Your task to perform on an android device: delete the emails in spam in the gmail app Image 0: 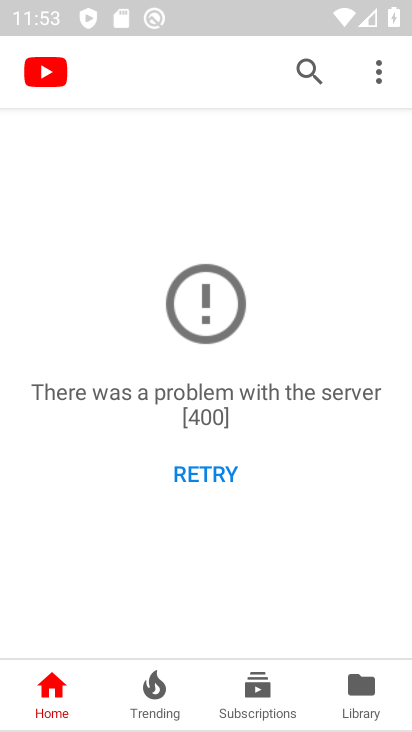
Step 0: press home button
Your task to perform on an android device: delete the emails in spam in the gmail app Image 1: 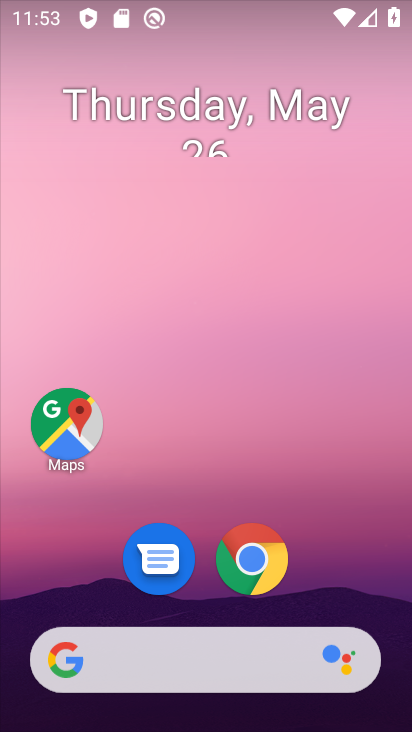
Step 1: drag from (205, 506) to (213, 52)
Your task to perform on an android device: delete the emails in spam in the gmail app Image 2: 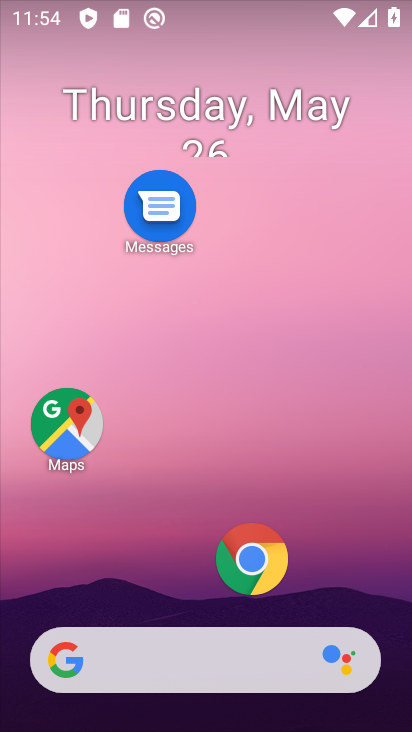
Step 2: drag from (191, 601) to (196, 36)
Your task to perform on an android device: delete the emails in spam in the gmail app Image 3: 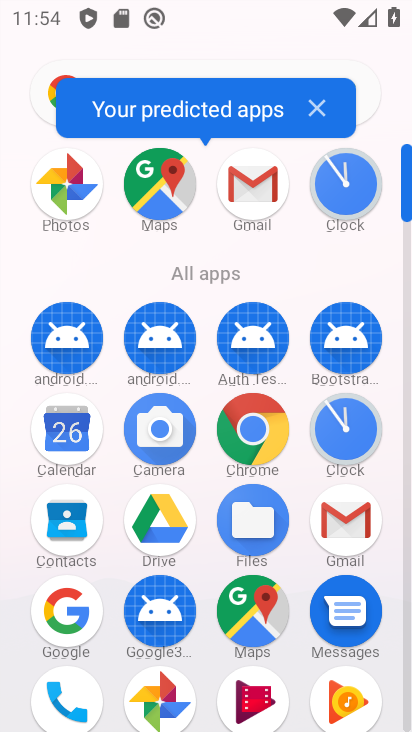
Step 3: click (348, 512)
Your task to perform on an android device: delete the emails in spam in the gmail app Image 4: 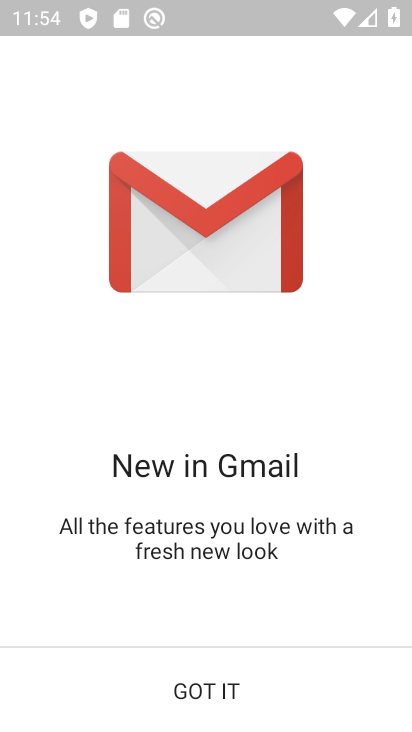
Step 4: click (209, 696)
Your task to perform on an android device: delete the emails in spam in the gmail app Image 5: 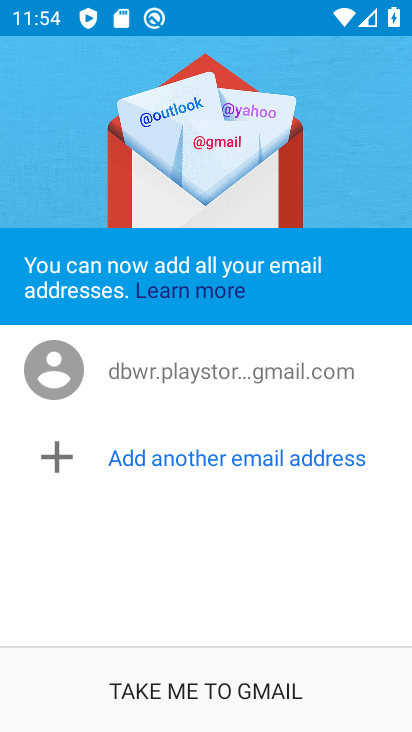
Step 5: click (208, 698)
Your task to perform on an android device: delete the emails in spam in the gmail app Image 6: 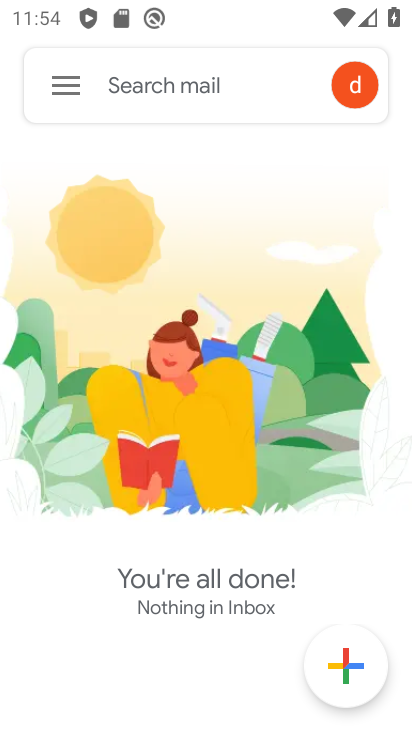
Step 6: click (64, 86)
Your task to perform on an android device: delete the emails in spam in the gmail app Image 7: 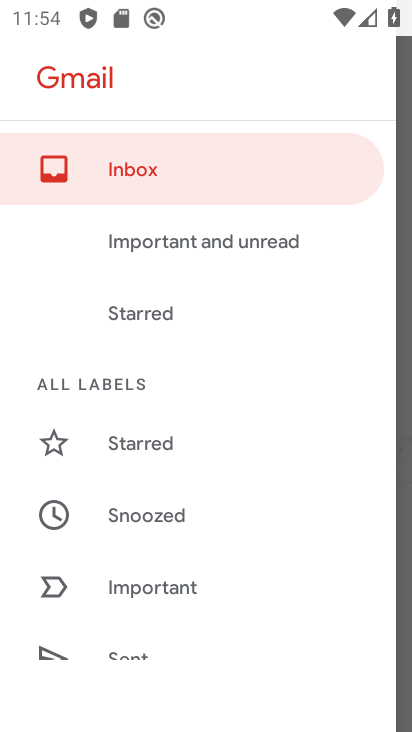
Step 7: drag from (163, 621) to (168, 83)
Your task to perform on an android device: delete the emails in spam in the gmail app Image 8: 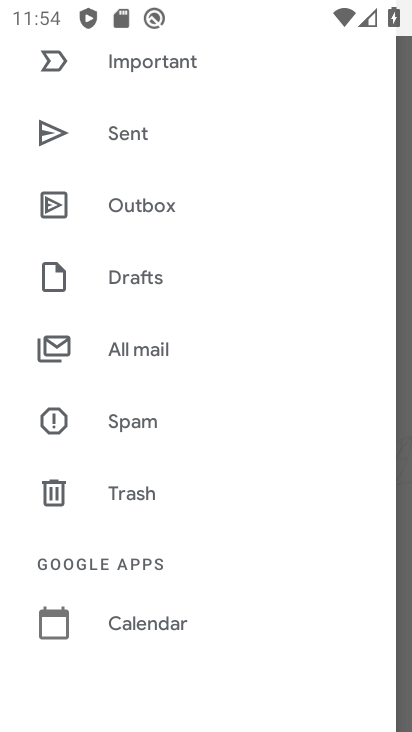
Step 8: click (88, 421)
Your task to perform on an android device: delete the emails in spam in the gmail app Image 9: 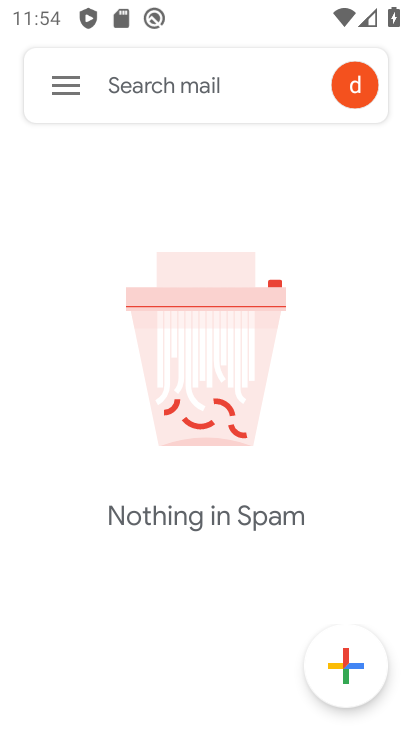
Step 9: task complete